Your task to perform on an android device: Search for "energizer triple a" on target.com, select the first entry, add it to the cart, then select checkout. Image 0: 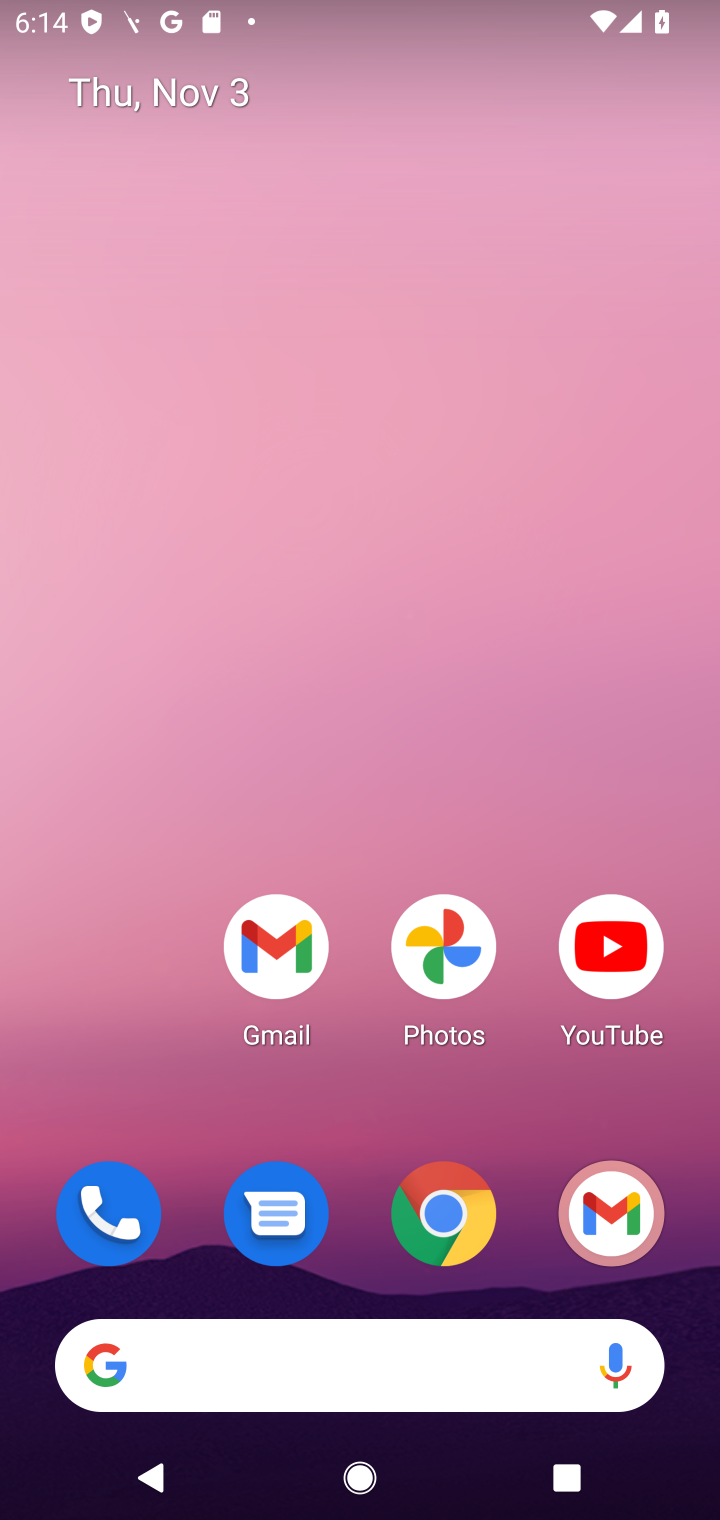
Step 0: click (455, 1228)
Your task to perform on an android device: Search for "energizer triple a" on target.com, select the first entry, add it to the cart, then select checkout. Image 1: 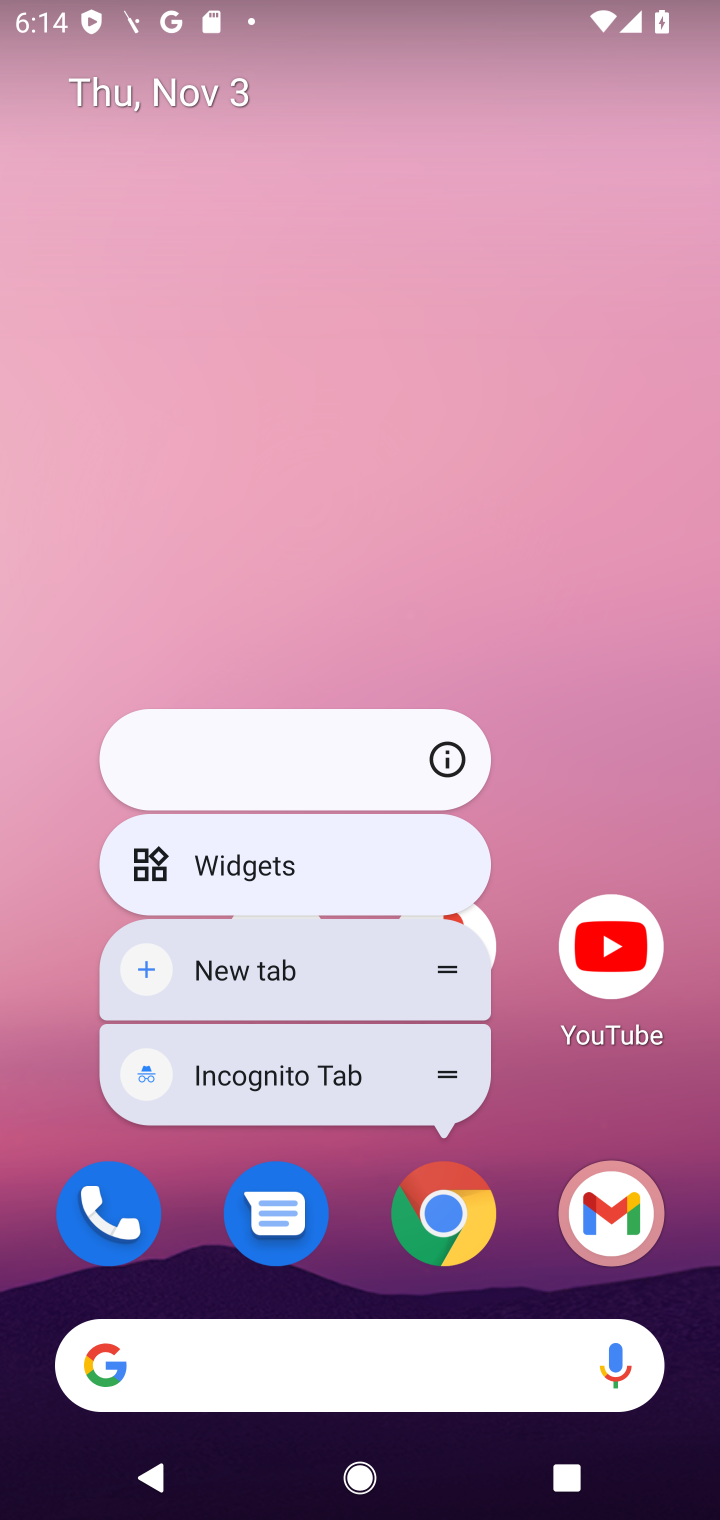
Step 1: click (455, 1228)
Your task to perform on an android device: Search for "energizer triple a" on target.com, select the first entry, add it to the cart, then select checkout. Image 2: 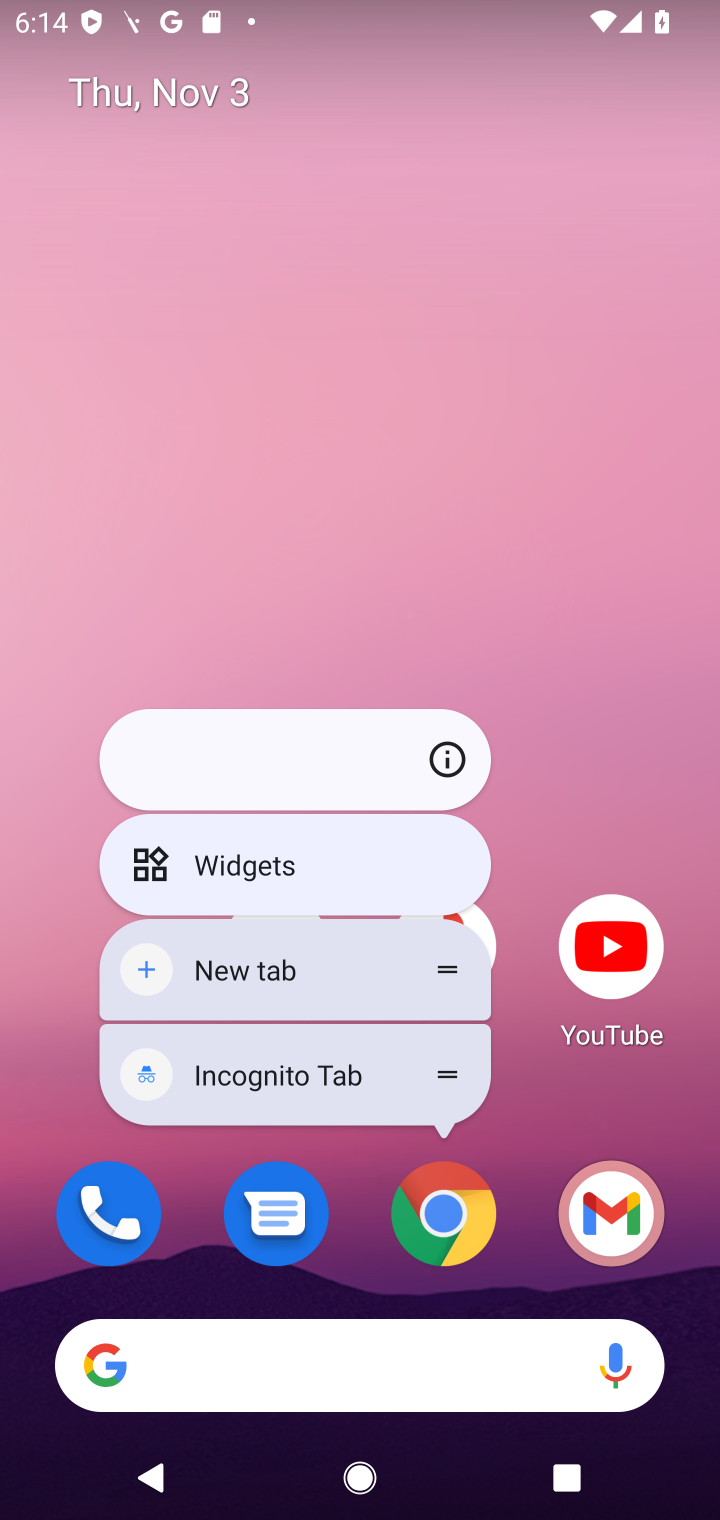
Step 2: click (455, 1230)
Your task to perform on an android device: Search for "energizer triple a" on target.com, select the first entry, add it to the cart, then select checkout. Image 3: 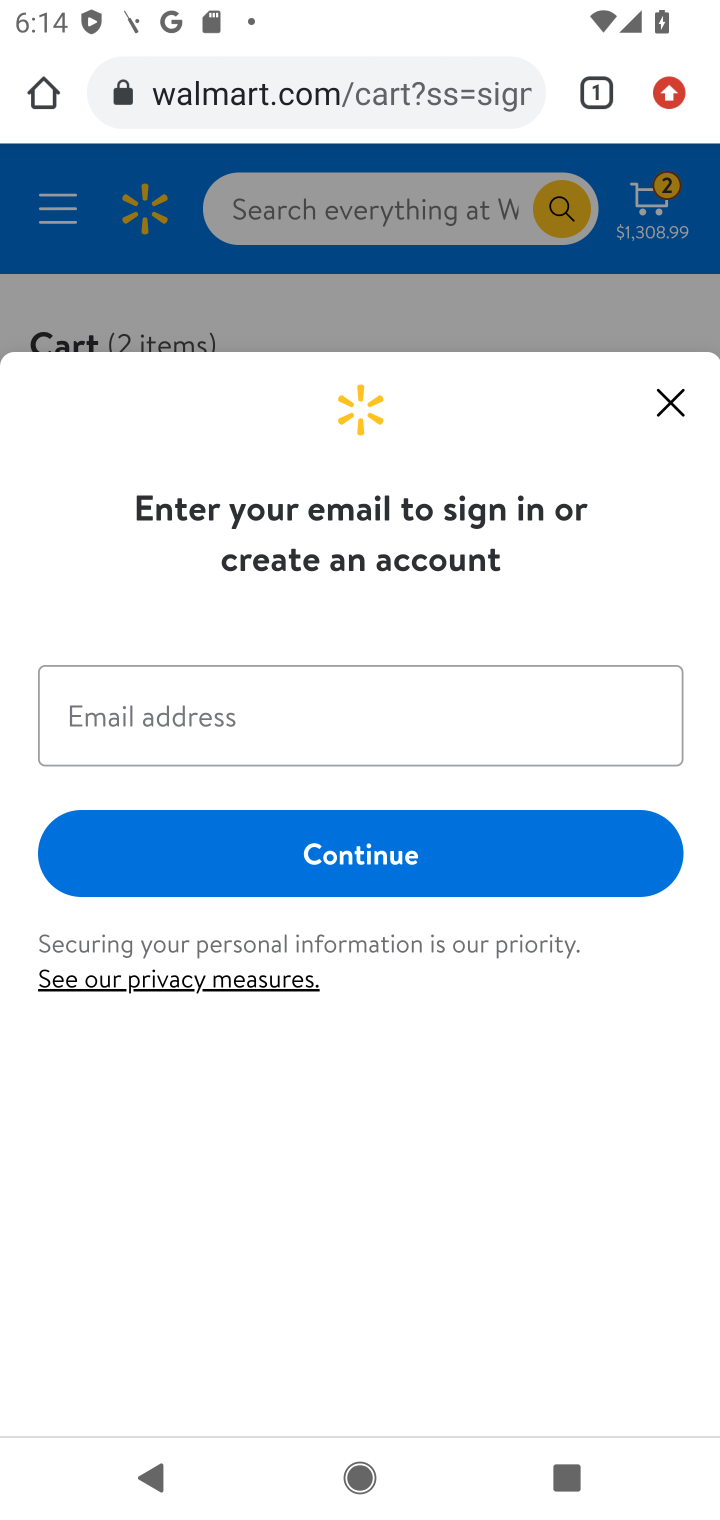
Step 3: click (316, 109)
Your task to perform on an android device: Search for "energizer triple a" on target.com, select the first entry, add it to the cart, then select checkout. Image 4: 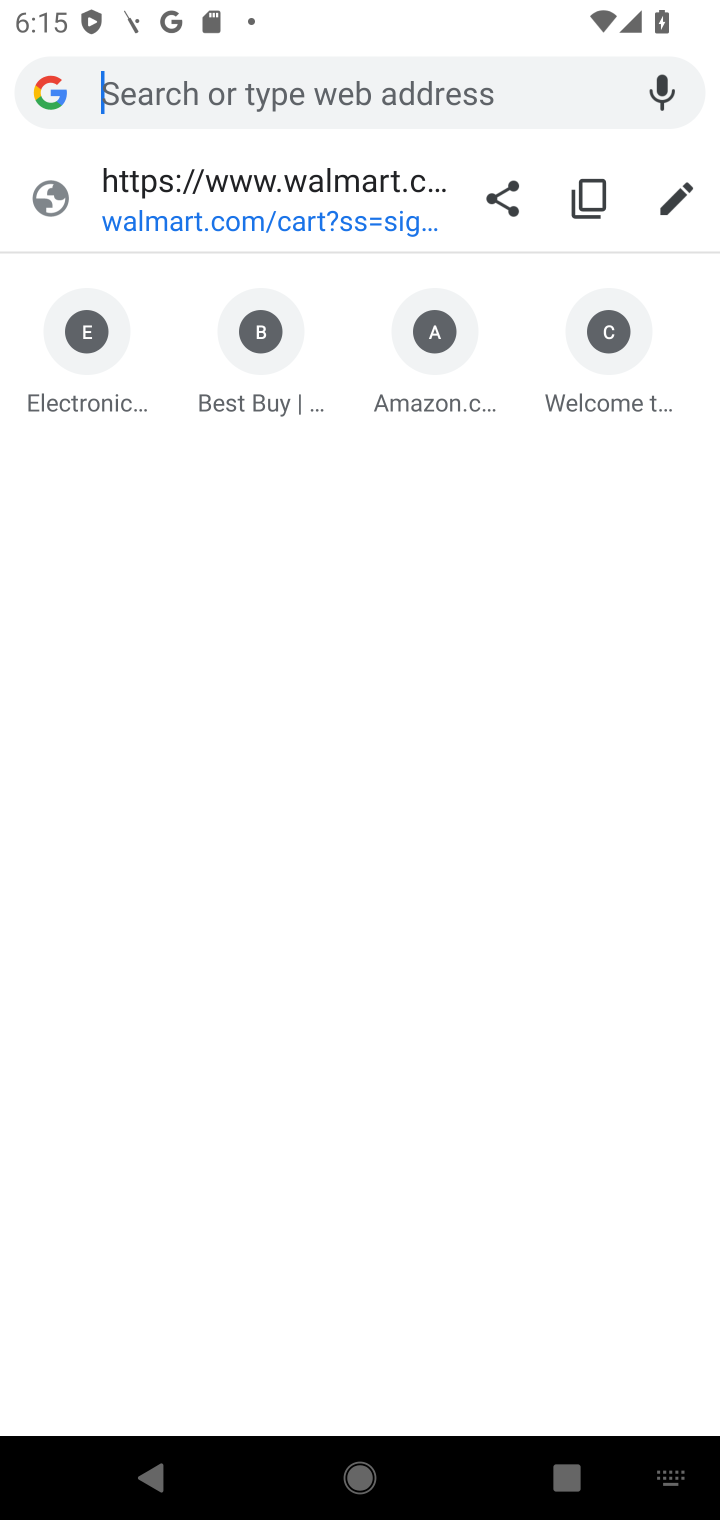
Step 4: type "target.com"
Your task to perform on an android device: Search for "energizer triple a" on target.com, select the first entry, add it to the cart, then select checkout. Image 5: 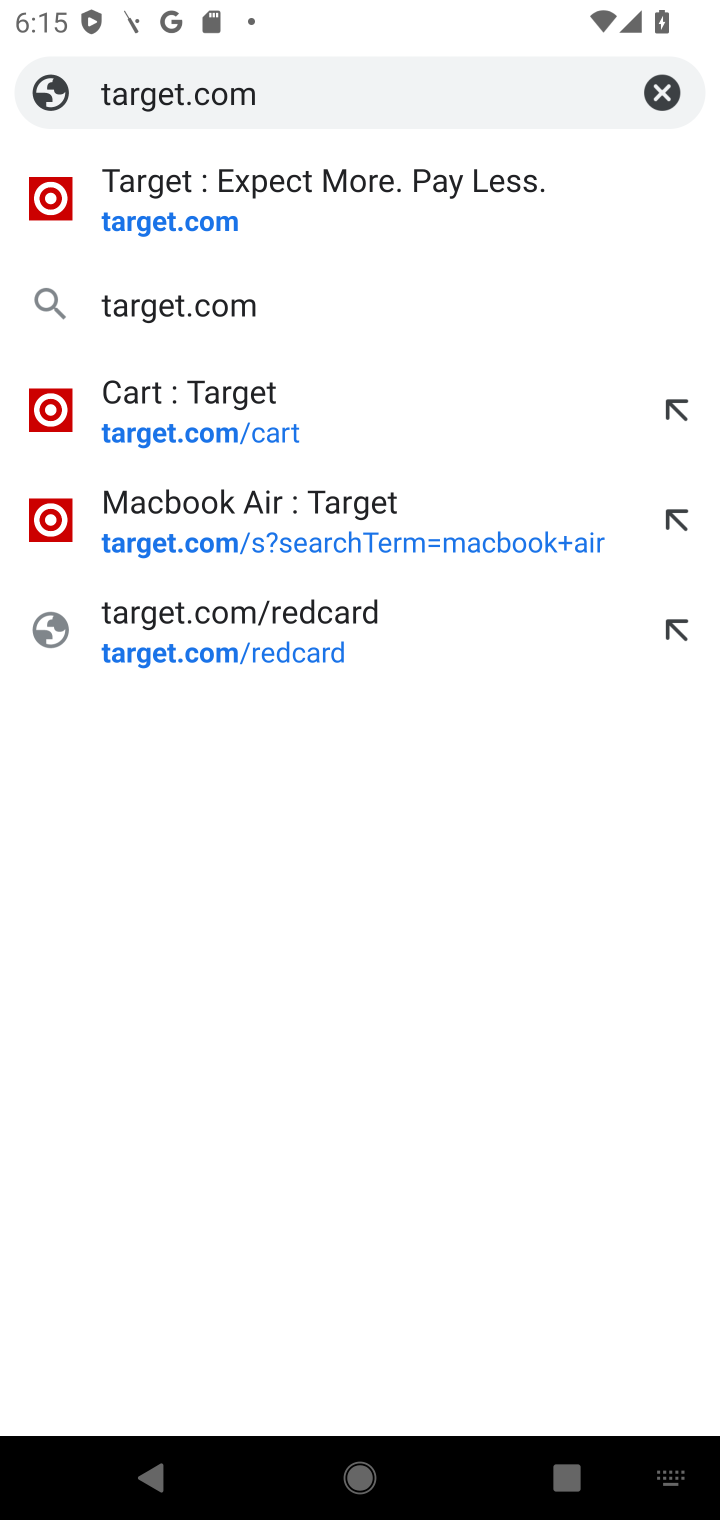
Step 5: click (170, 217)
Your task to perform on an android device: Search for "energizer triple a" on target.com, select the first entry, add it to the cart, then select checkout. Image 6: 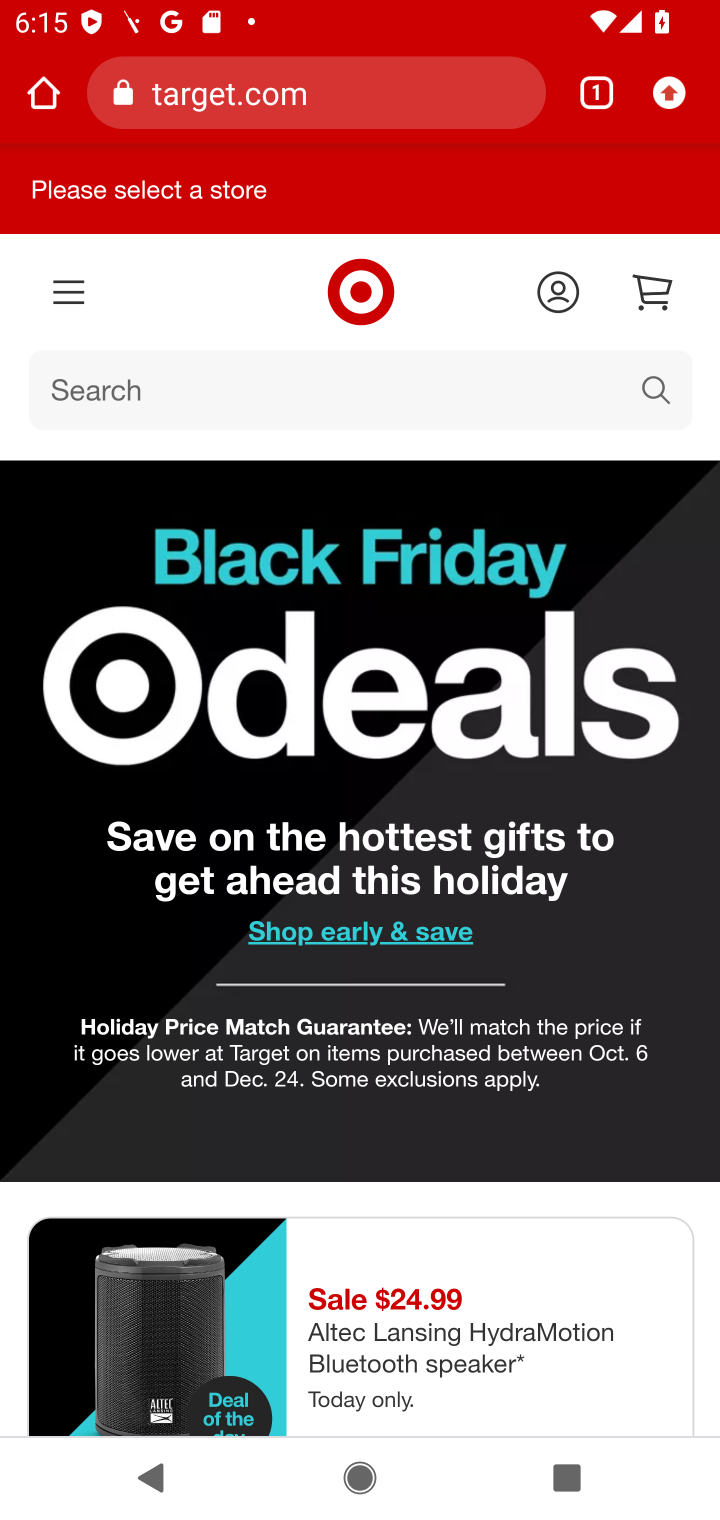
Step 6: click (655, 395)
Your task to perform on an android device: Search for "energizer triple a" on target.com, select the first entry, add it to the cart, then select checkout. Image 7: 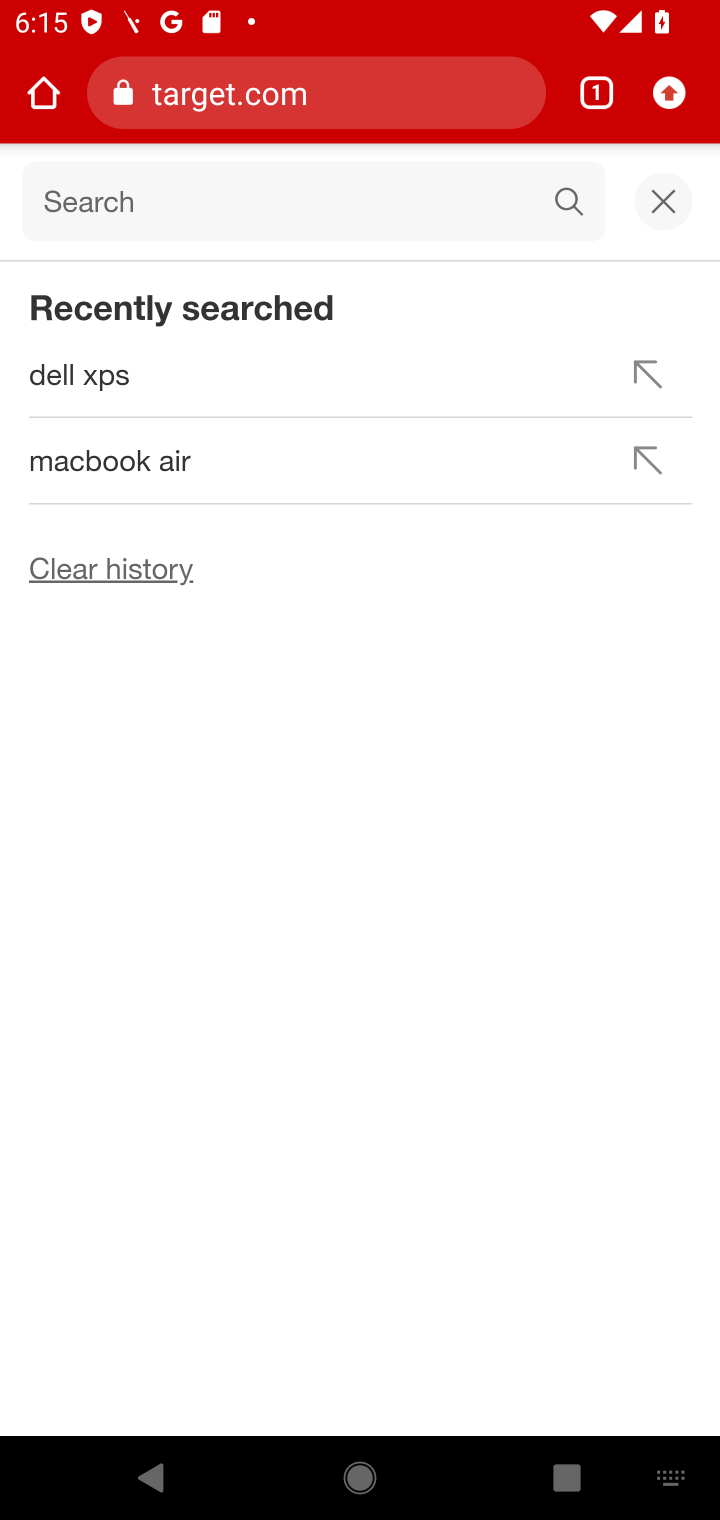
Step 7: type "energizer triple a"
Your task to perform on an android device: Search for "energizer triple a" on target.com, select the first entry, add it to the cart, then select checkout. Image 8: 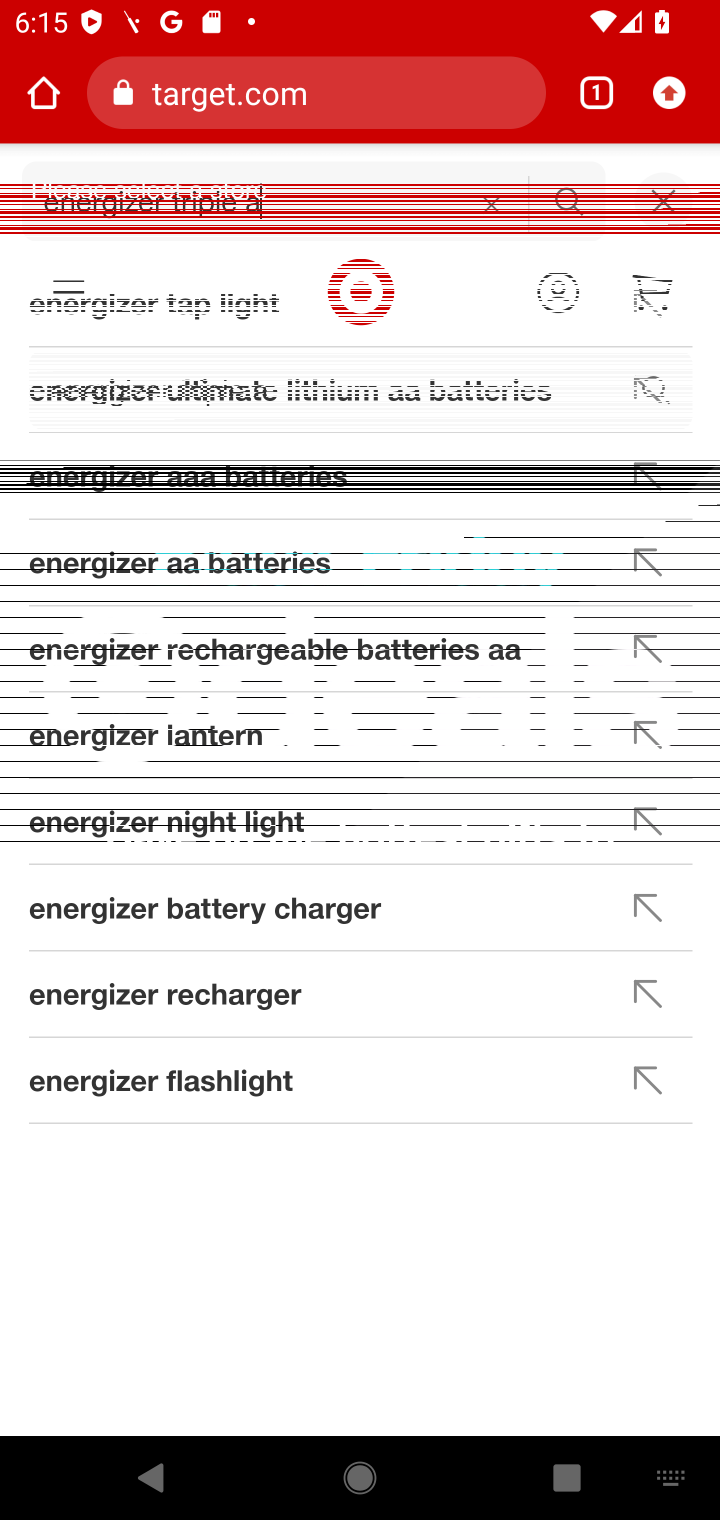
Step 8: click (310, 489)
Your task to perform on an android device: Search for "energizer triple a" on target.com, select the first entry, add it to the cart, then select checkout. Image 9: 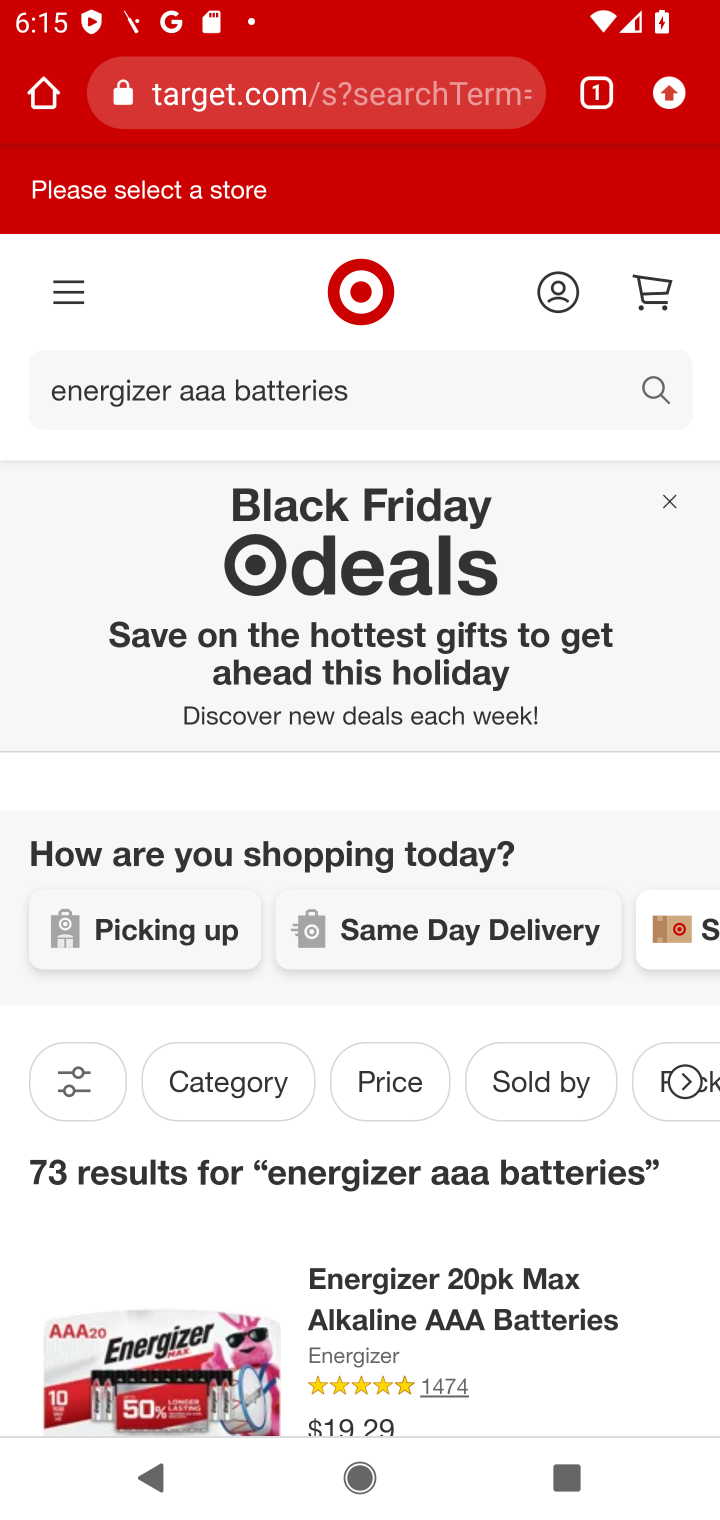
Step 9: drag from (308, 861) to (372, 409)
Your task to perform on an android device: Search for "energizer triple a" on target.com, select the first entry, add it to the cart, then select checkout. Image 10: 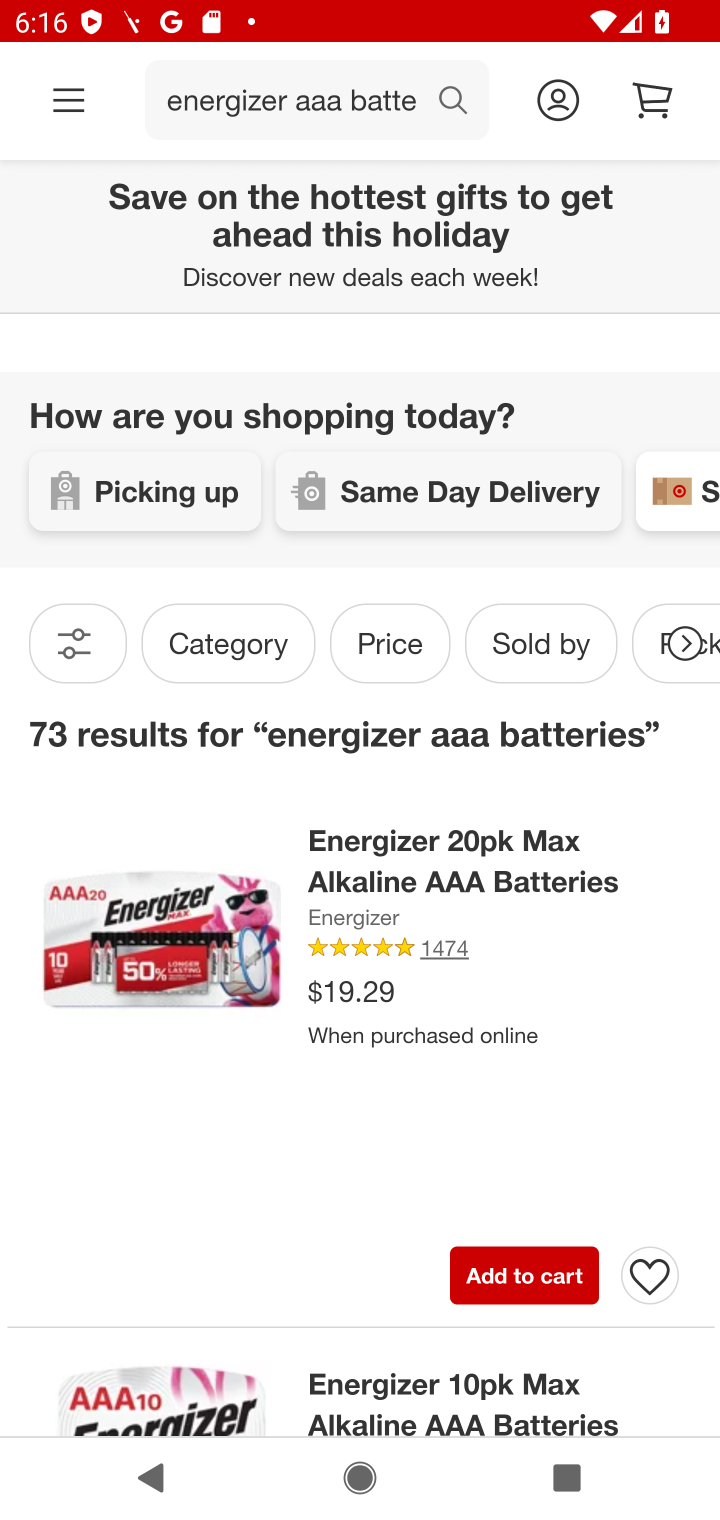
Step 10: click (252, 940)
Your task to perform on an android device: Search for "energizer triple a" on target.com, select the first entry, add it to the cart, then select checkout. Image 11: 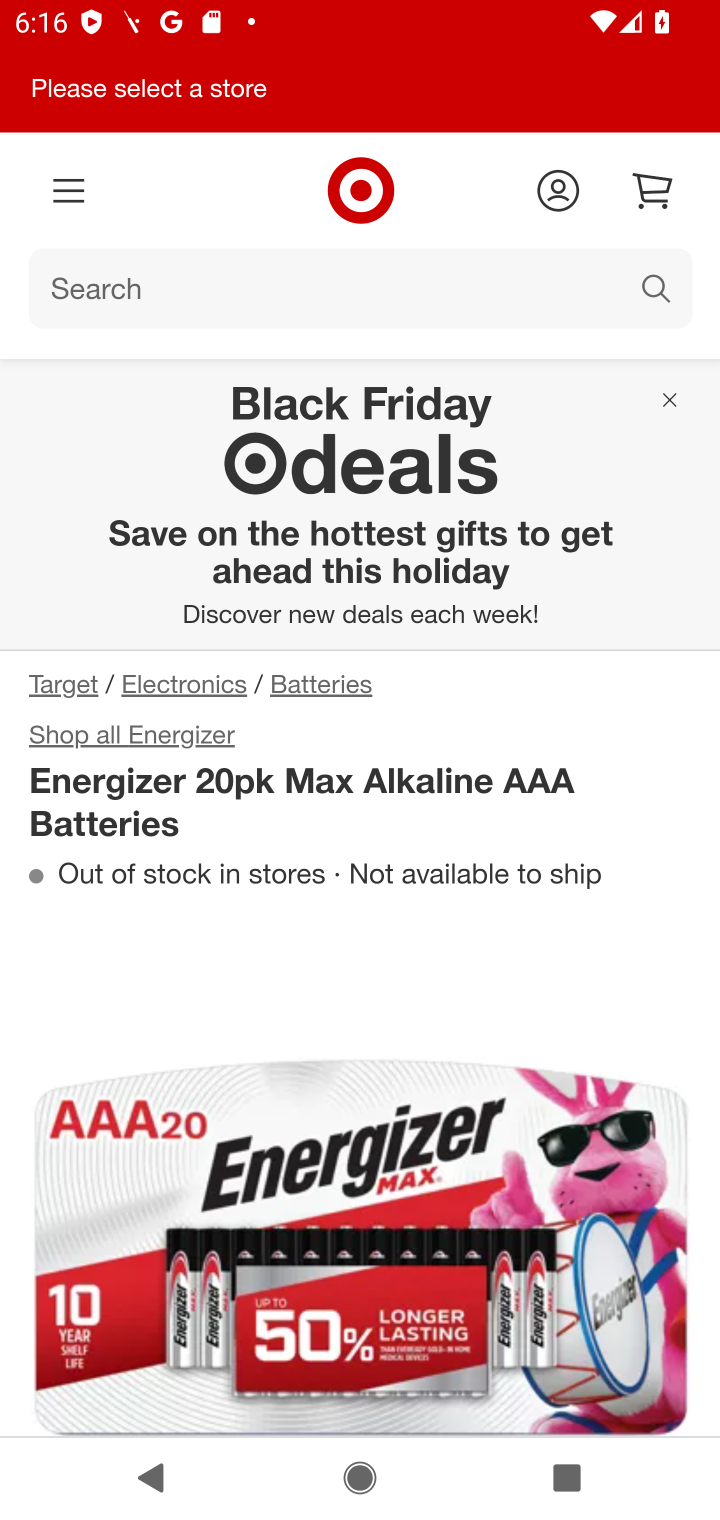
Step 11: drag from (284, 1070) to (333, 468)
Your task to perform on an android device: Search for "energizer triple a" on target.com, select the first entry, add it to the cart, then select checkout. Image 12: 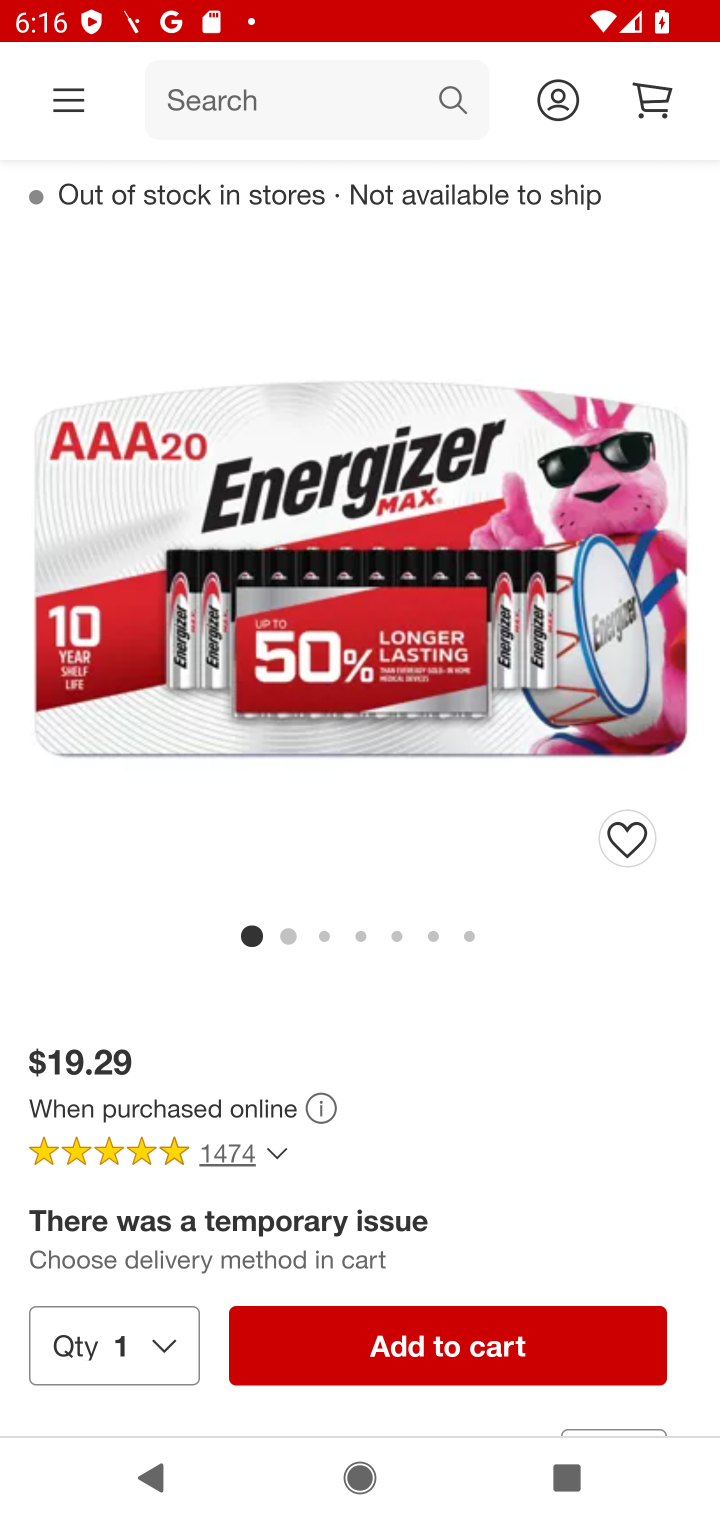
Step 12: click (432, 1353)
Your task to perform on an android device: Search for "energizer triple a" on target.com, select the first entry, add it to the cart, then select checkout. Image 13: 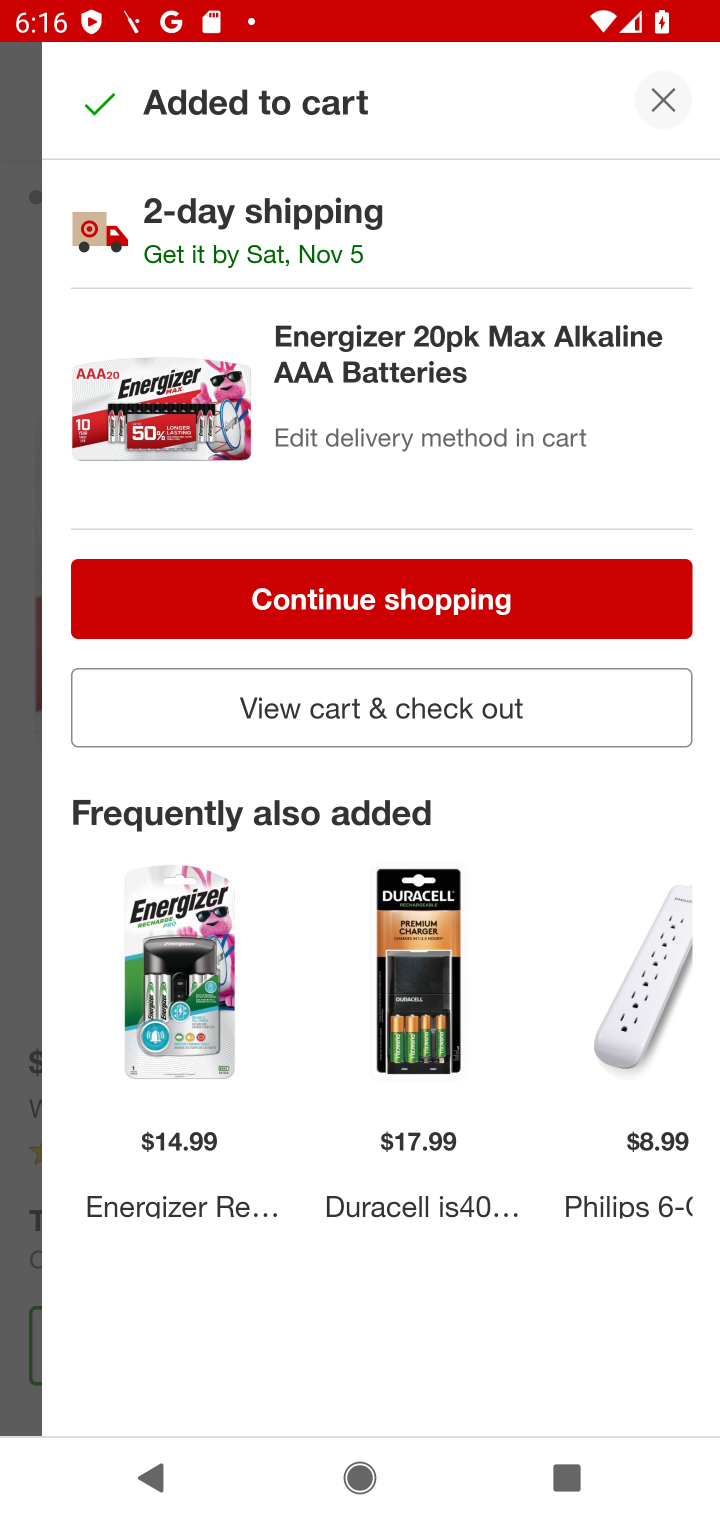
Step 13: click (318, 709)
Your task to perform on an android device: Search for "energizer triple a" on target.com, select the first entry, add it to the cart, then select checkout. Image 14: 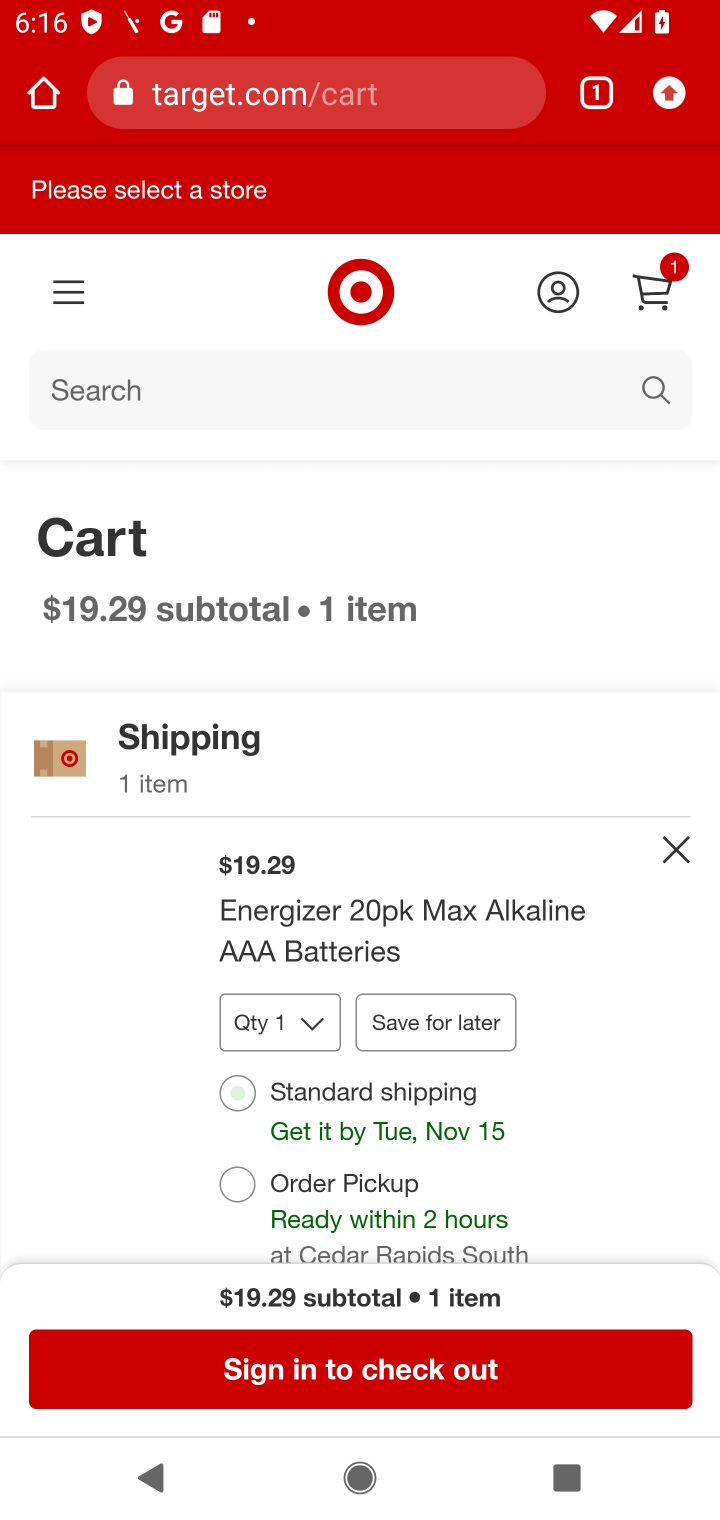
Step 14: task complete